Your task to perform on an android device: see sites visited before in the chrome app Image 0: 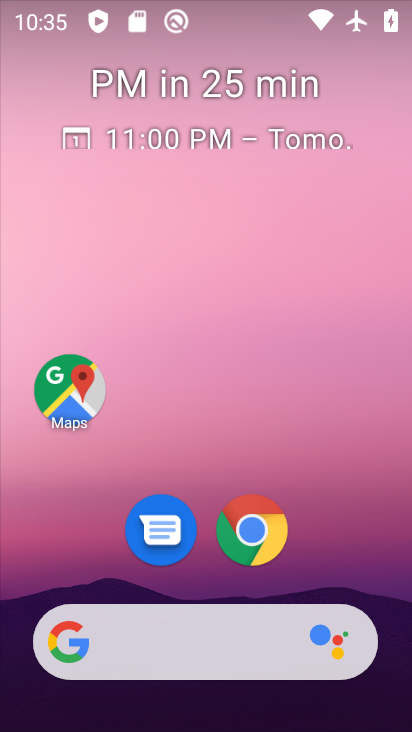
Step 0: drag from (336, 512) to (157, 9)
Your task to perform on an android device: see sites visited before in the chrome app Image 1: 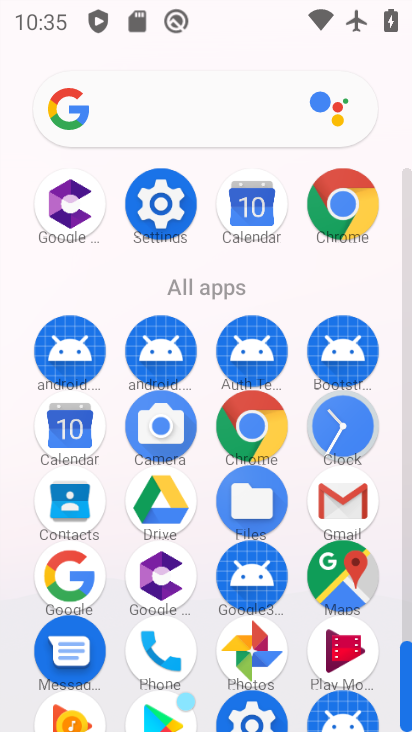
Step 1: click (339, 170)
Your task to perform on an android device: see sites visited before in the chrome app Image 2: 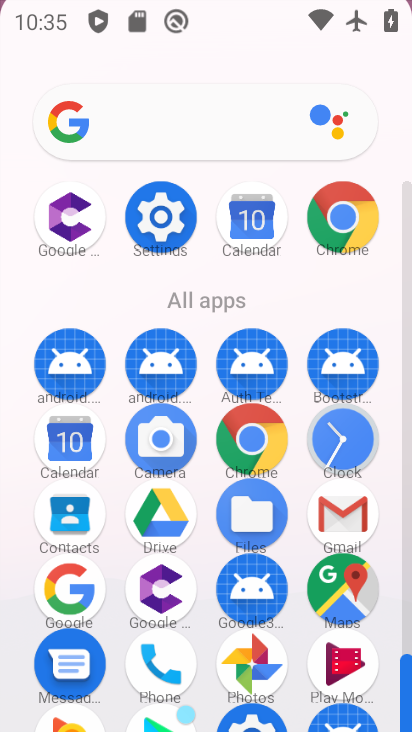
Step 2: click (346, 197)
Your task to perform on an android device: see sites visited before in the chrome app Image 3: 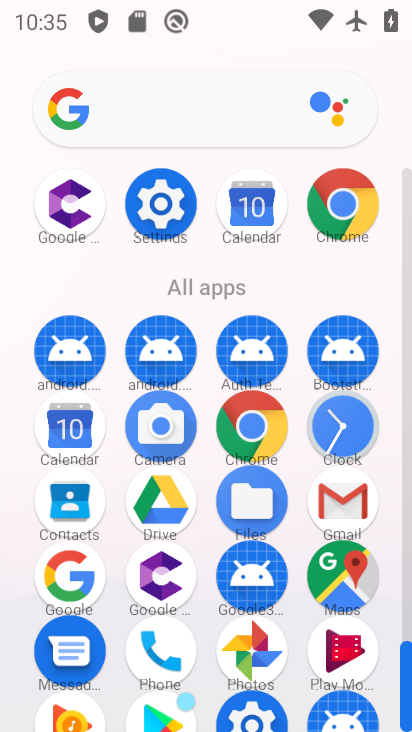
Step 3: click (341, 201)
Your task to perform on an android device: see sites visited before in the chrome app Image 4: 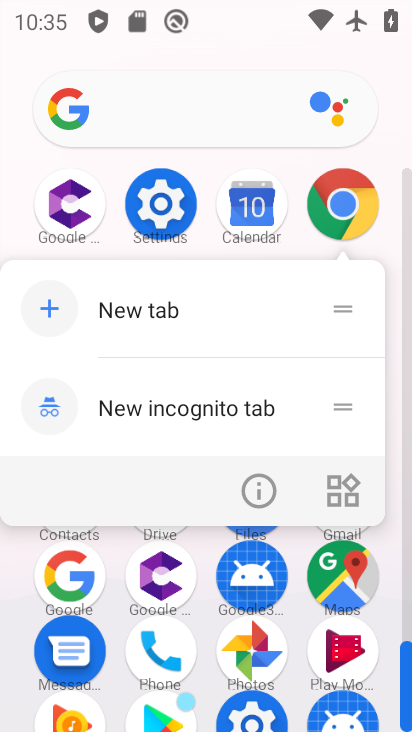
Step 4: click (343, 200)
Your task to perform on an android device: see sites visited before in the chrome app Image 5: 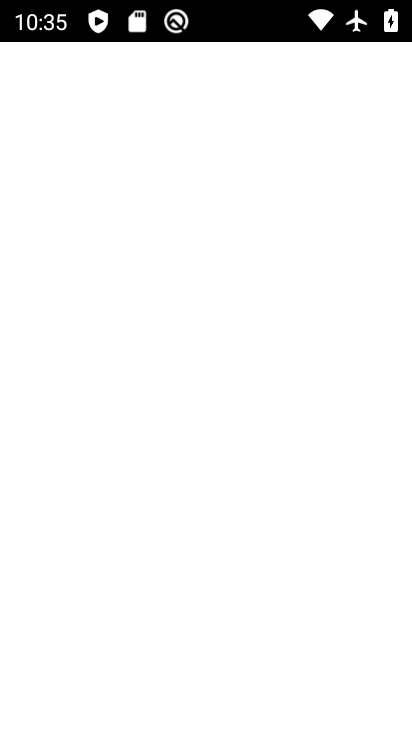
Step 5: click (342, 205)
Your task to perform on an android device: see sites visited before in the chrome app Image 6: 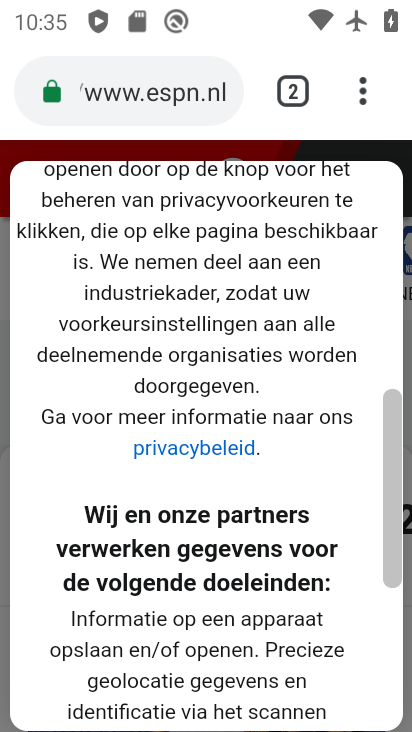
Step 6: drag from (361, 83) to (92, 425)
Your task to perform on an android device: see sites visited before in the chrome app Image 7: 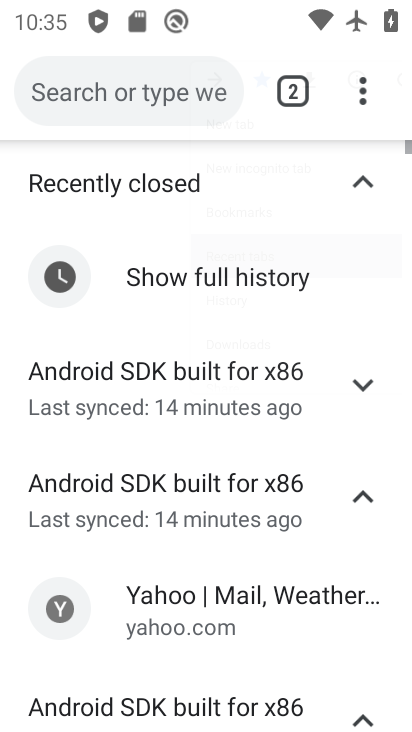
Step 7: click (92, 425)
Your task to perform on an android device: see sites visited before in the chrome app Image 8: 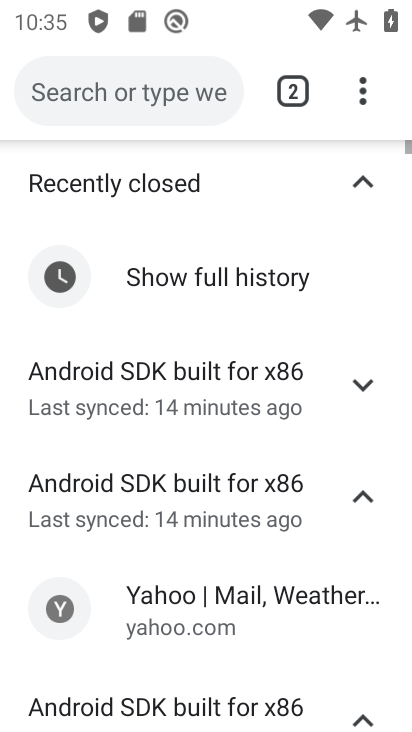
Step 8: click (92, 422)
Your task to perform on an android device: see sites visited before in the chrome app Image 9: 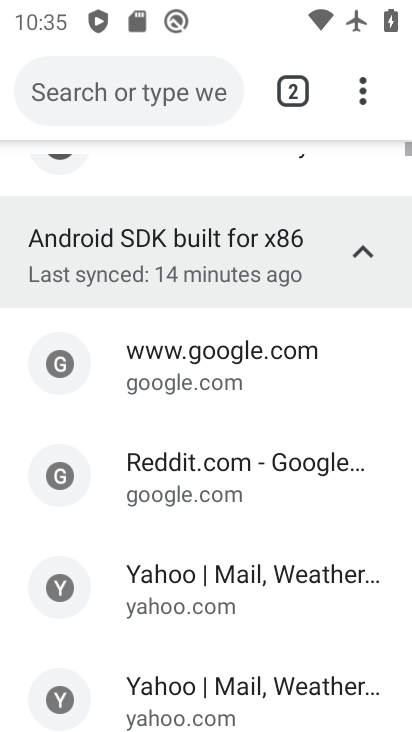
Step 9: click (74, 410)
Your task to perform on an android device: see sites visited before in the chrome app Image 10: 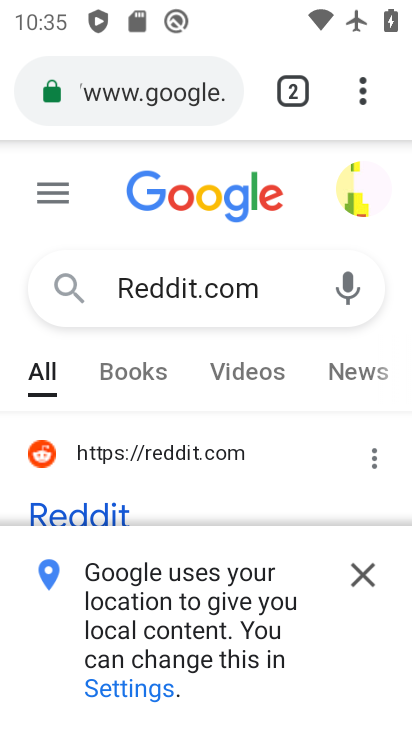
Step 10: task complete